Your task to perform on an android device: Is it going to rain tomorrow? Image 0: 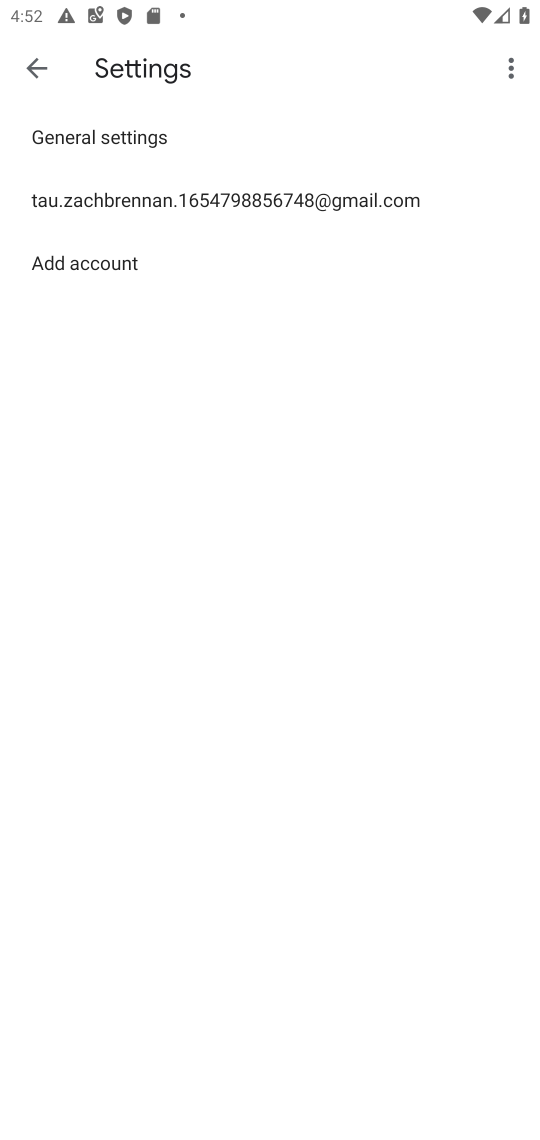
Step 0: press home button
Your task to perform on an android device: Is it going to rain tomorrow? Image 1: 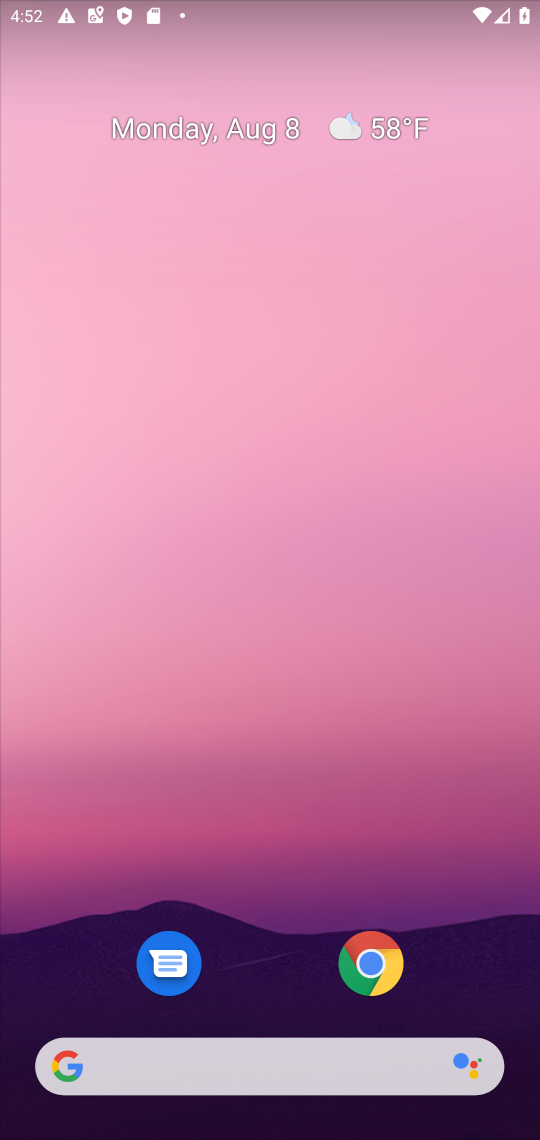
Step 1: click (259, 1061)
Your task to perform on an android device: Is it going to rain tomorrow? Image 2: 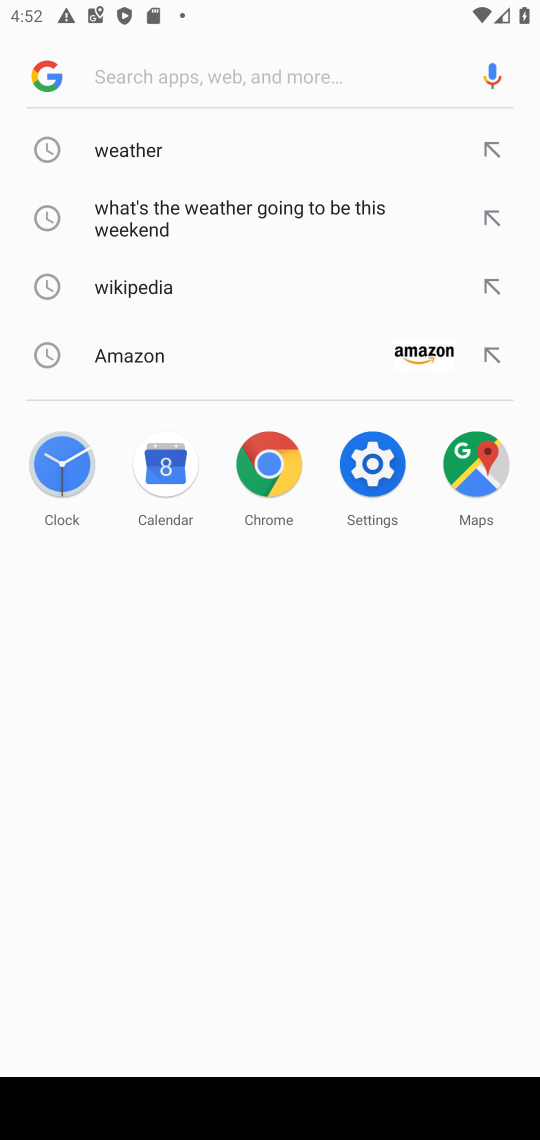
Step 2: type "is it going to rain tomorrow"
Your task to perform on an android device: Is it going to rain tomorrow? Image 3: 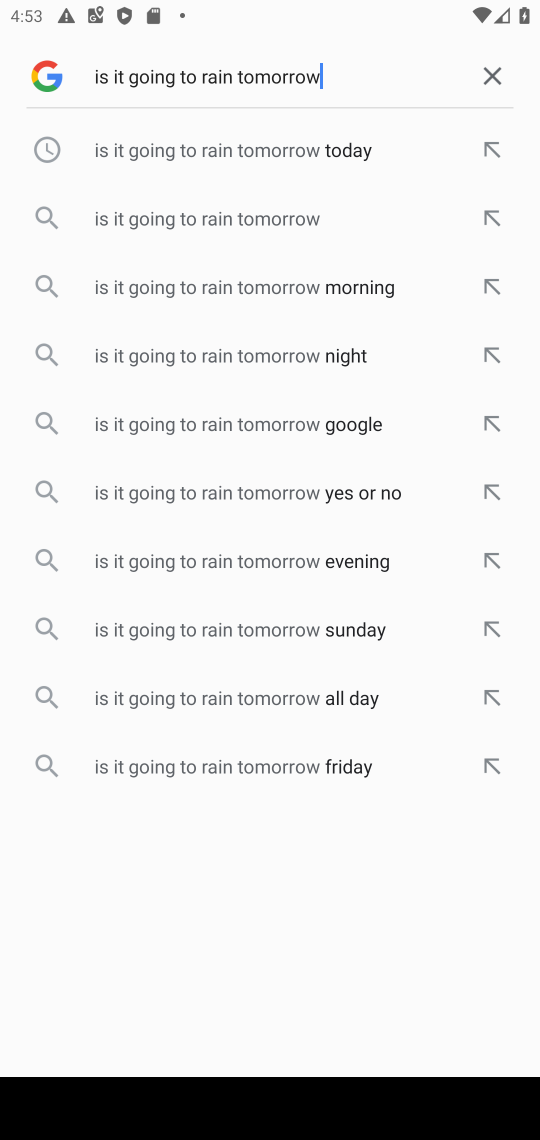
Step 3: click (330, 221)
Your task to perform on an android device: Is it going to rain tomorrow? Image 4: 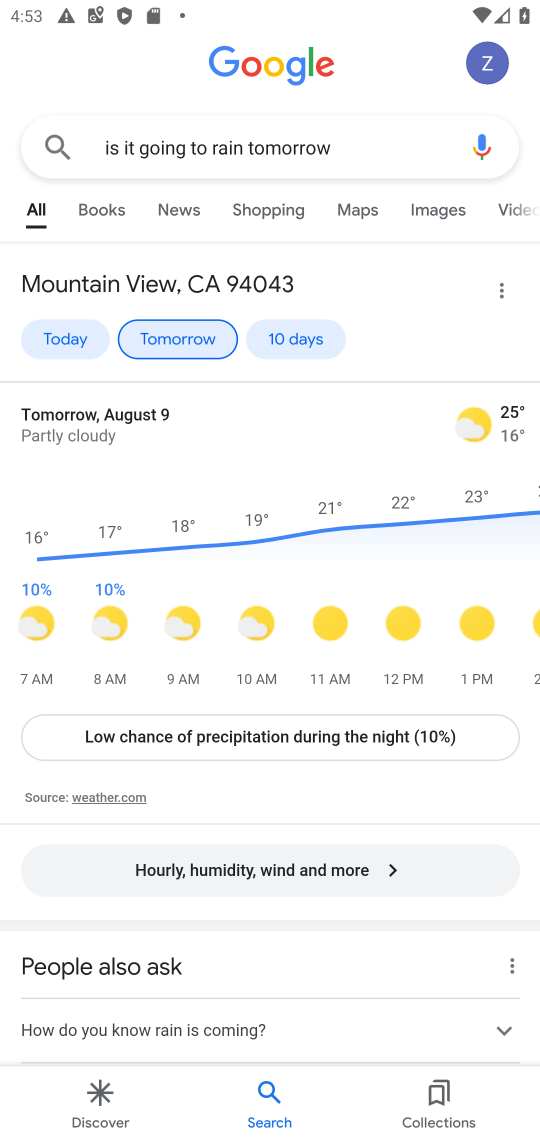
Step 4: task complete